Your task to perform on an android device: Open battery settings Image 0: 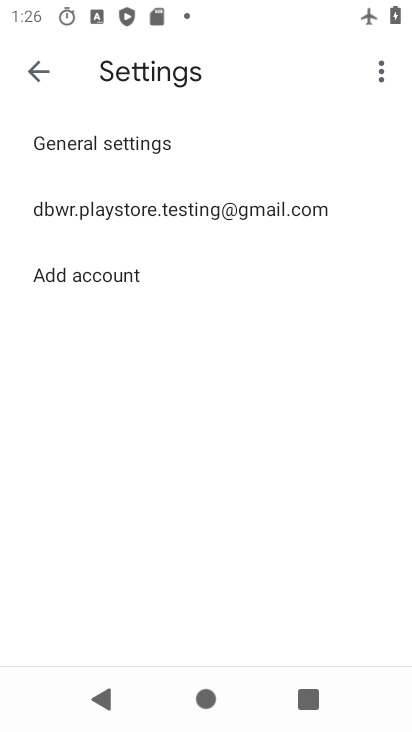
Step 0: press home button
Your task to perform on an android device: Open battery settings Image 1: 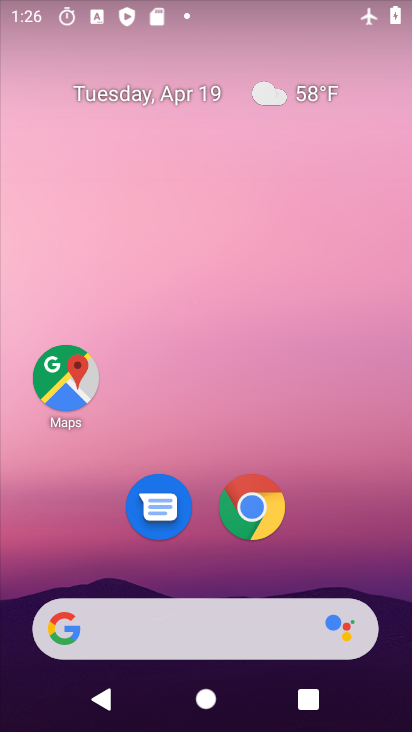
Step 1: drag from (203, 551) to (207, 104)
Your task to perform on an android device: Open battery settings Image 2: 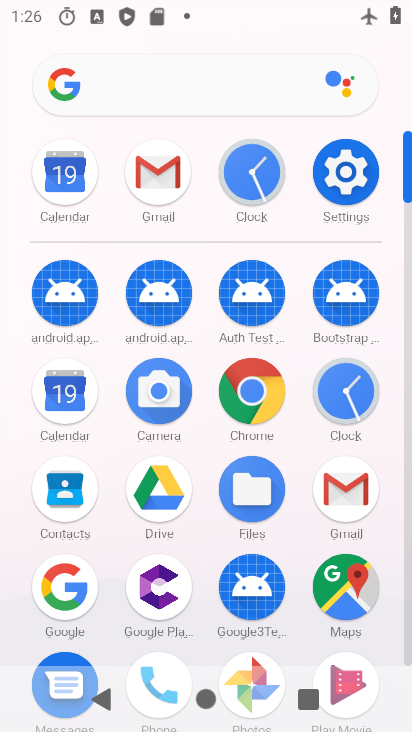
Step 2: click (344, 188)
Your task to perform on an android device: Open battery settings Image 3: 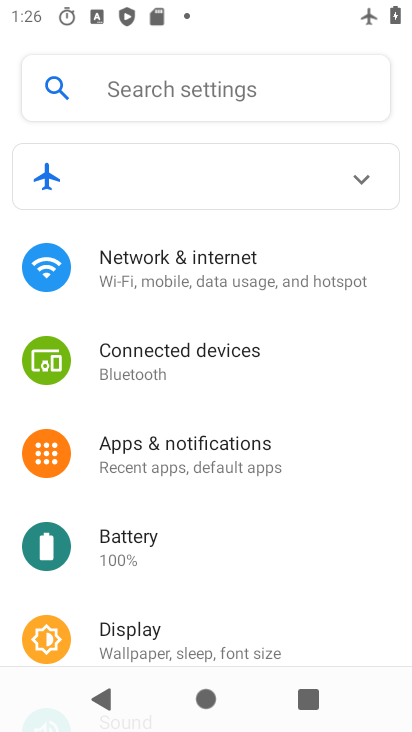
Step 3: click (187, 549)
Your task to perform on an android device: Open battery settings Image 4: 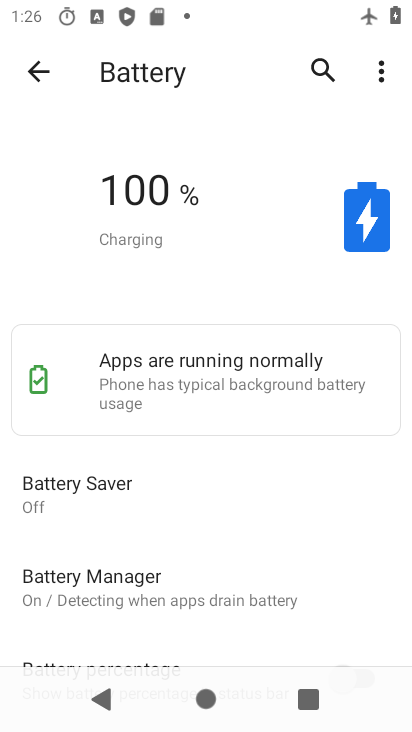
Step 4: click (377, 84)
Your task to perform on an android device: Open battery settings Image 5: 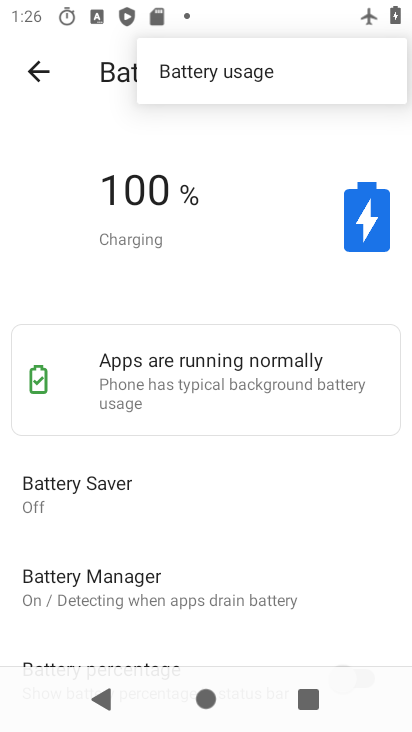
Step 5: click (275, 74)
Your task to perform on an android device: Open battery settings Image 6: 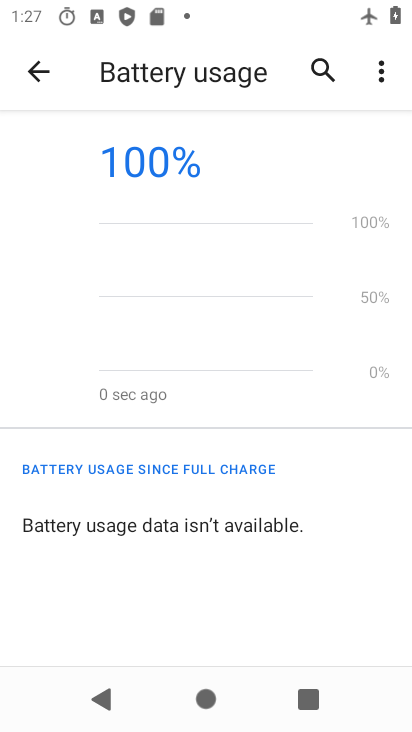
Step 6: task complete